Your task to perform on an android device: turn pop-ups on in chrome Image 0: 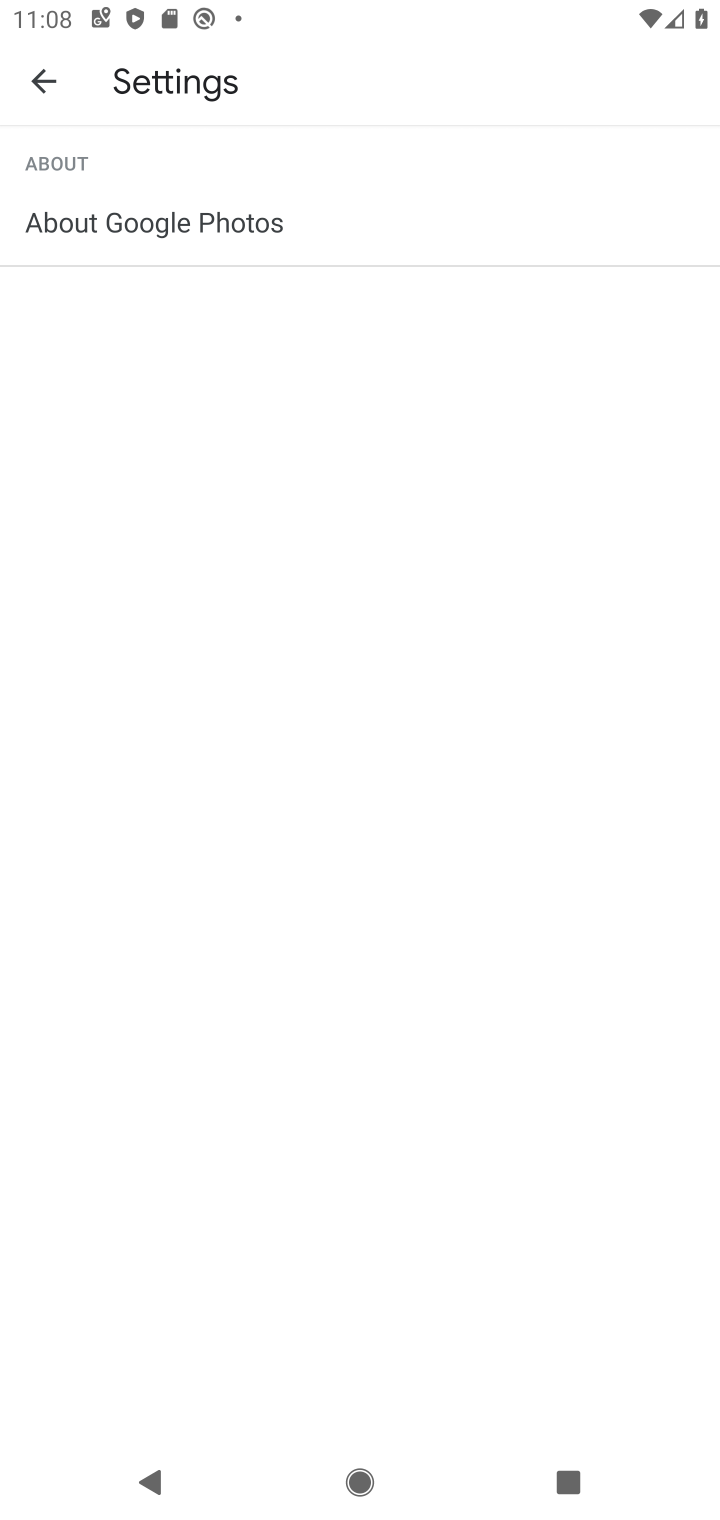
Step 0: press back button
Your task to perform on an android device: turn pop-ups on in chrome Image 1: 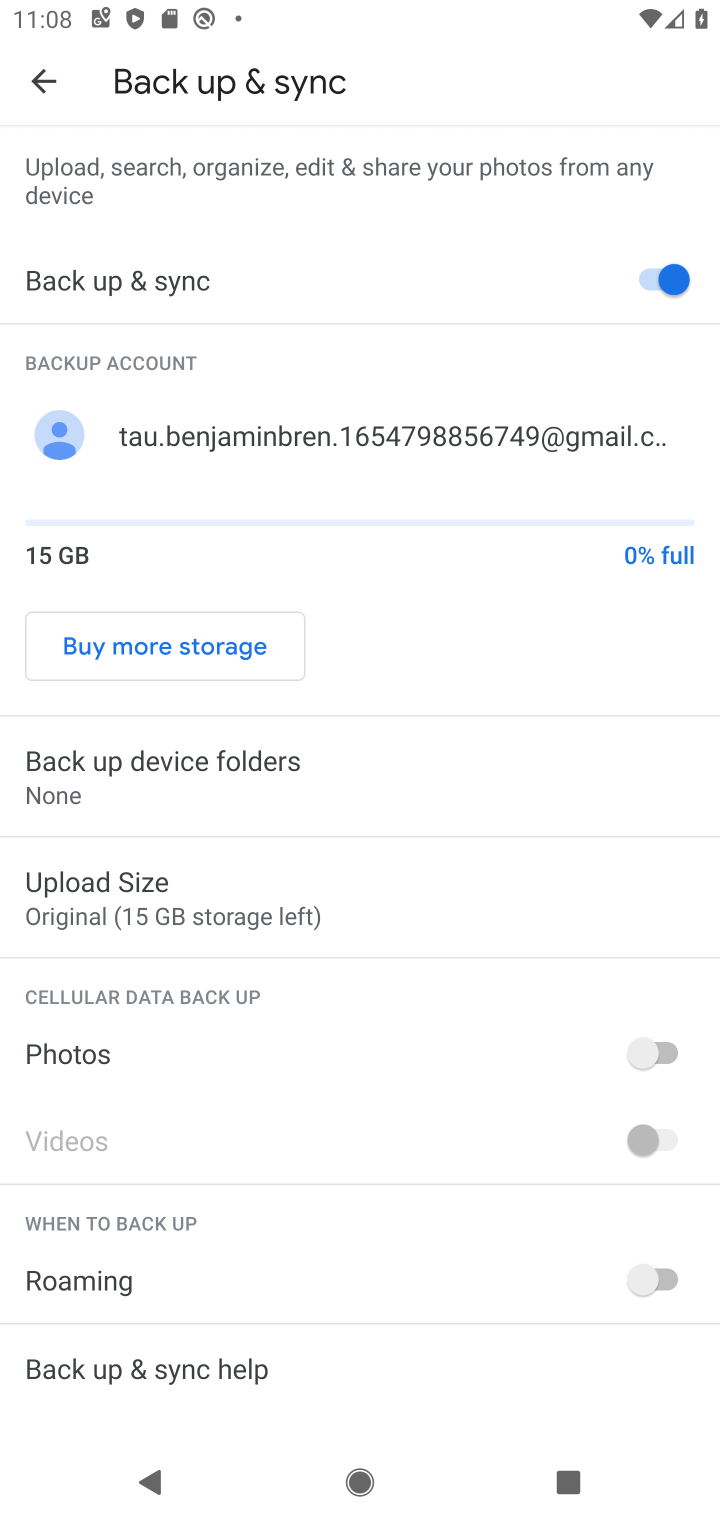
Step 1: press home button
Your task to perform on an android device: turn pop-ups on in chrome Image 2: 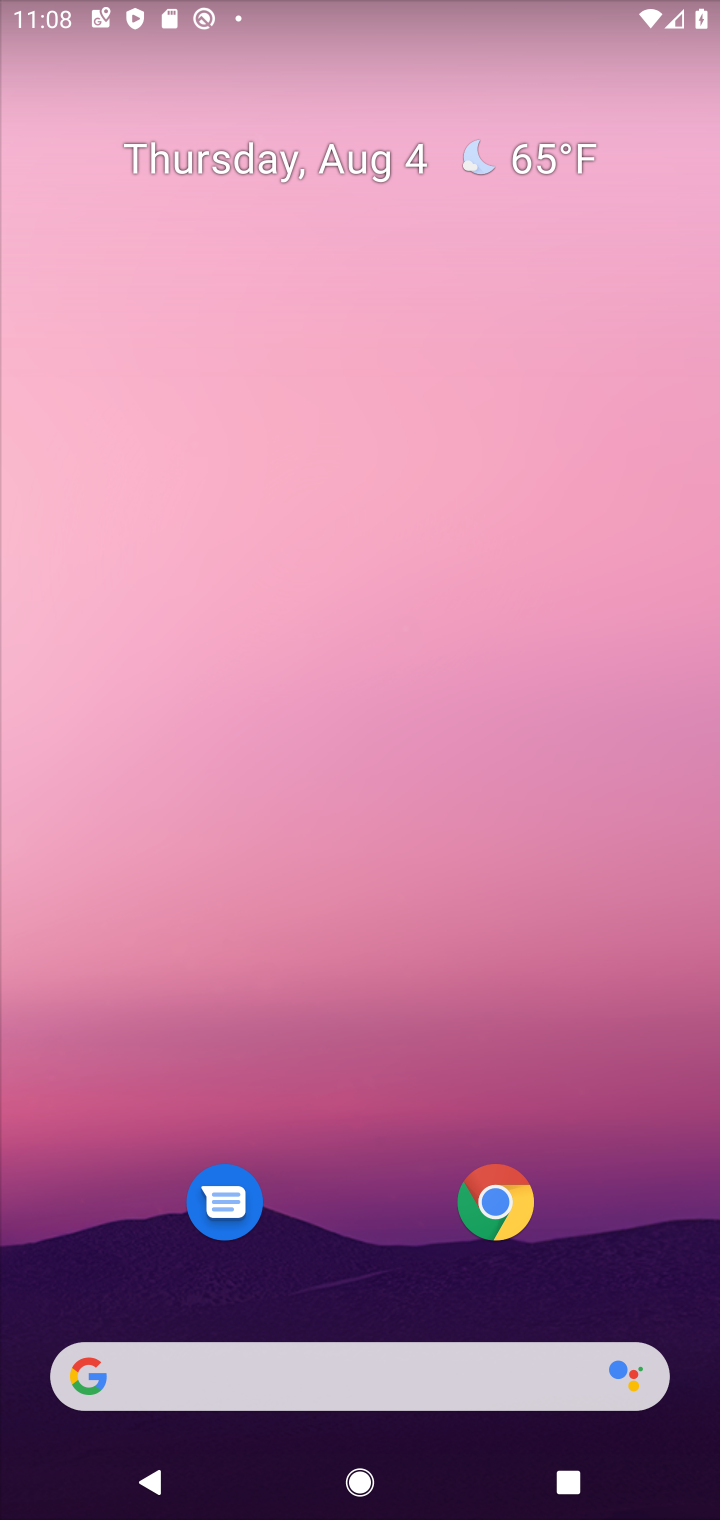
Step 2: click (502, 1194)
Your task to perform on an android device: turn pop-ups on in chrome Image 3: 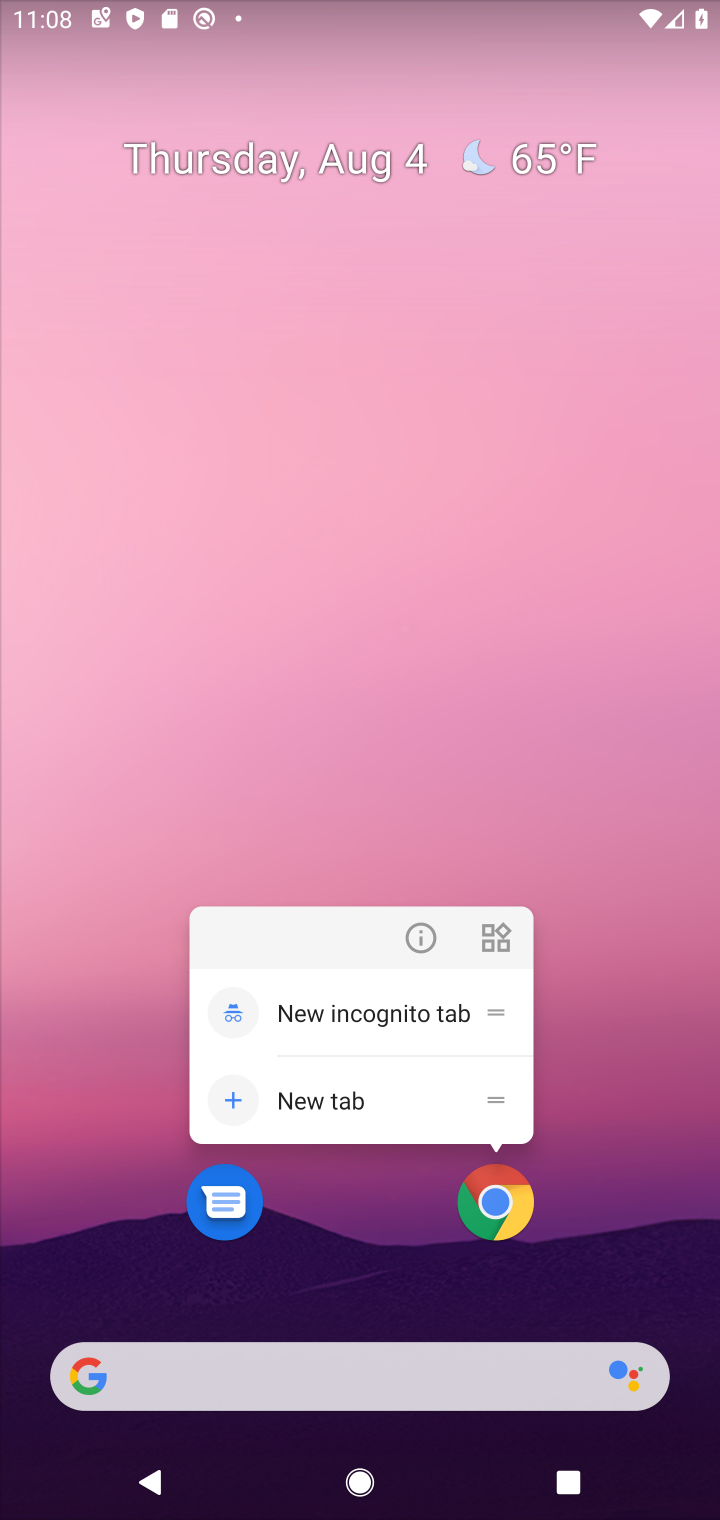
Step 3: click (482, 1205)
Your task to perform on an android device: turn pop-ups on in chrome Image 4: 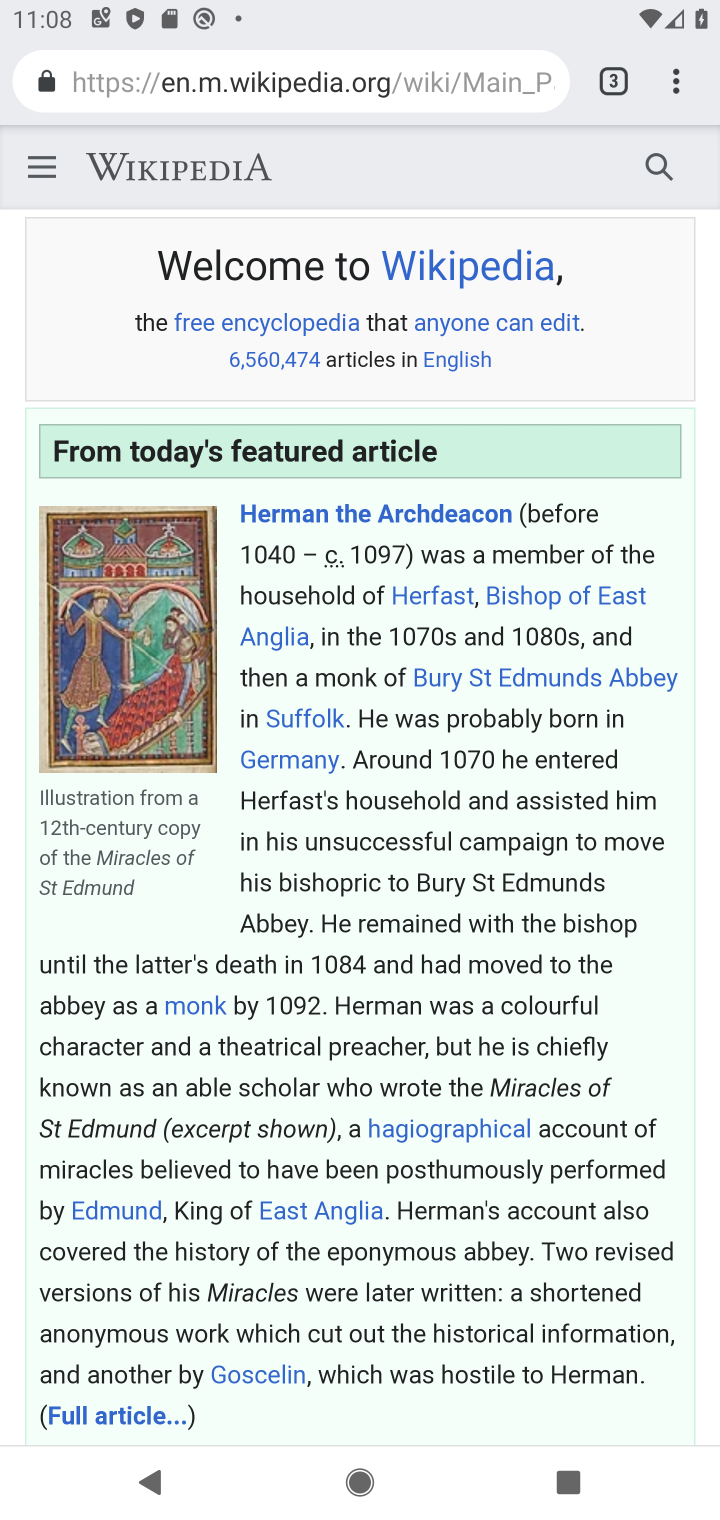
Step 4: drag from (677, 68) to (437, 1003)
Your task to perform on an android device: turn pop-ups on in chrome Image 5: 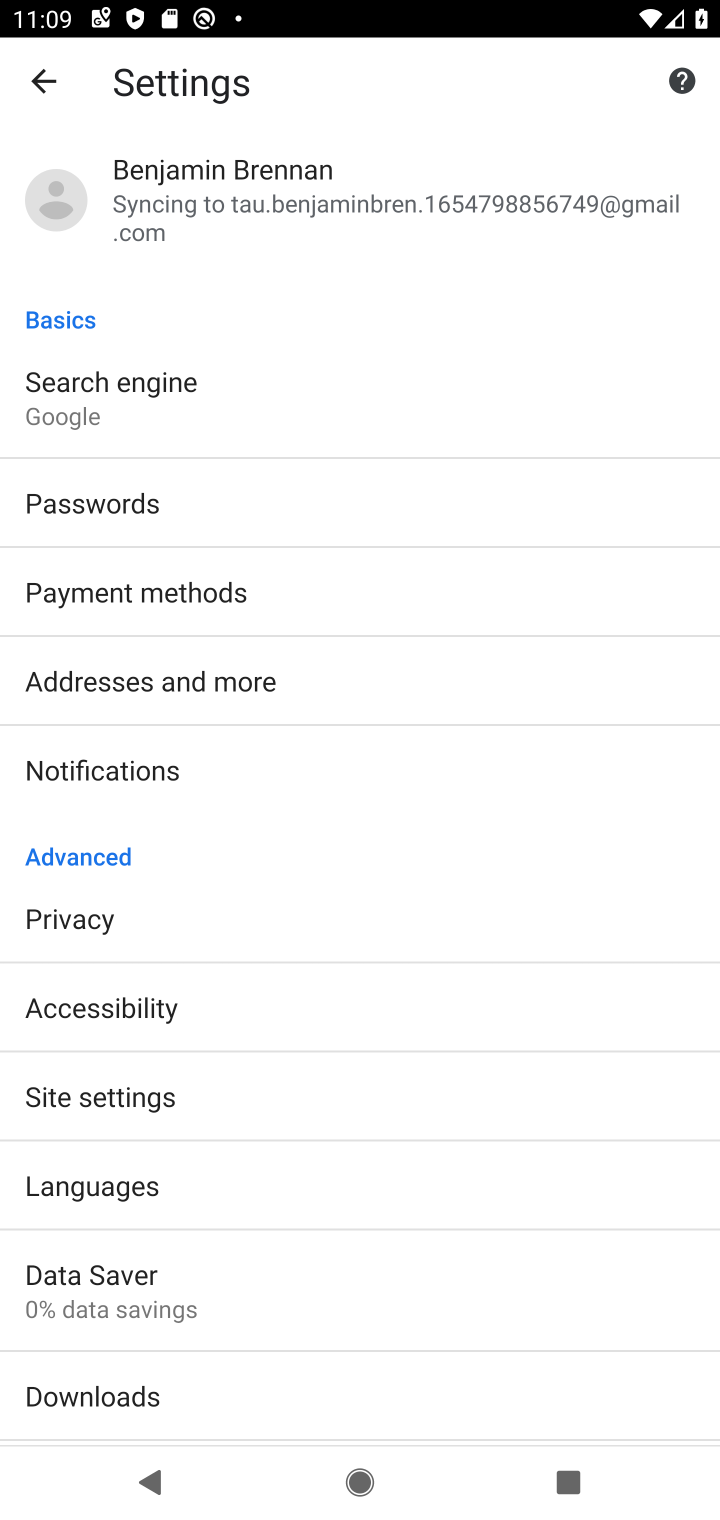
Step 5: click (131, 1086)
Your task to perform on an android device: turn pop-ups on in chrome Image 6: 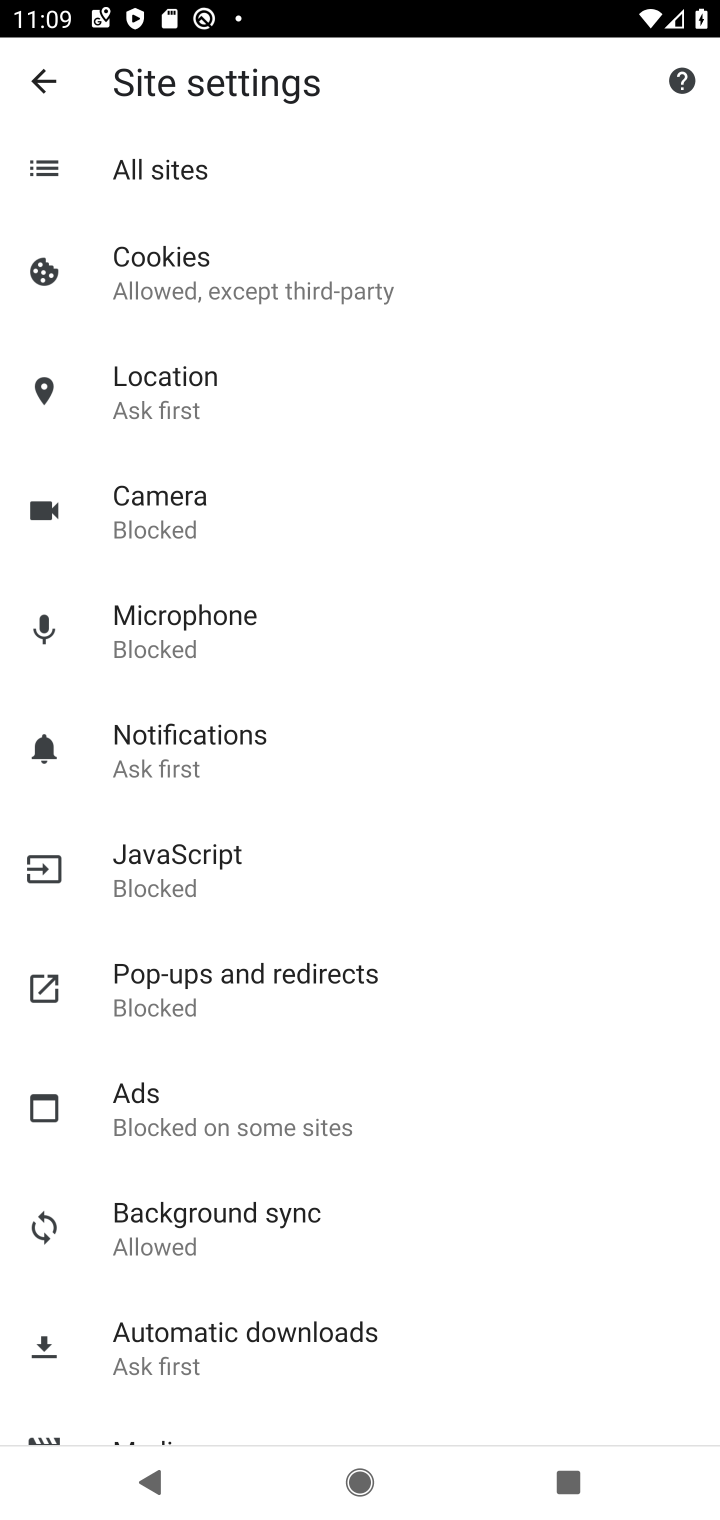
Step 6: click (193, 1002)
Your task to perform on an android device: turn pop-ups on in chrome Image 7: 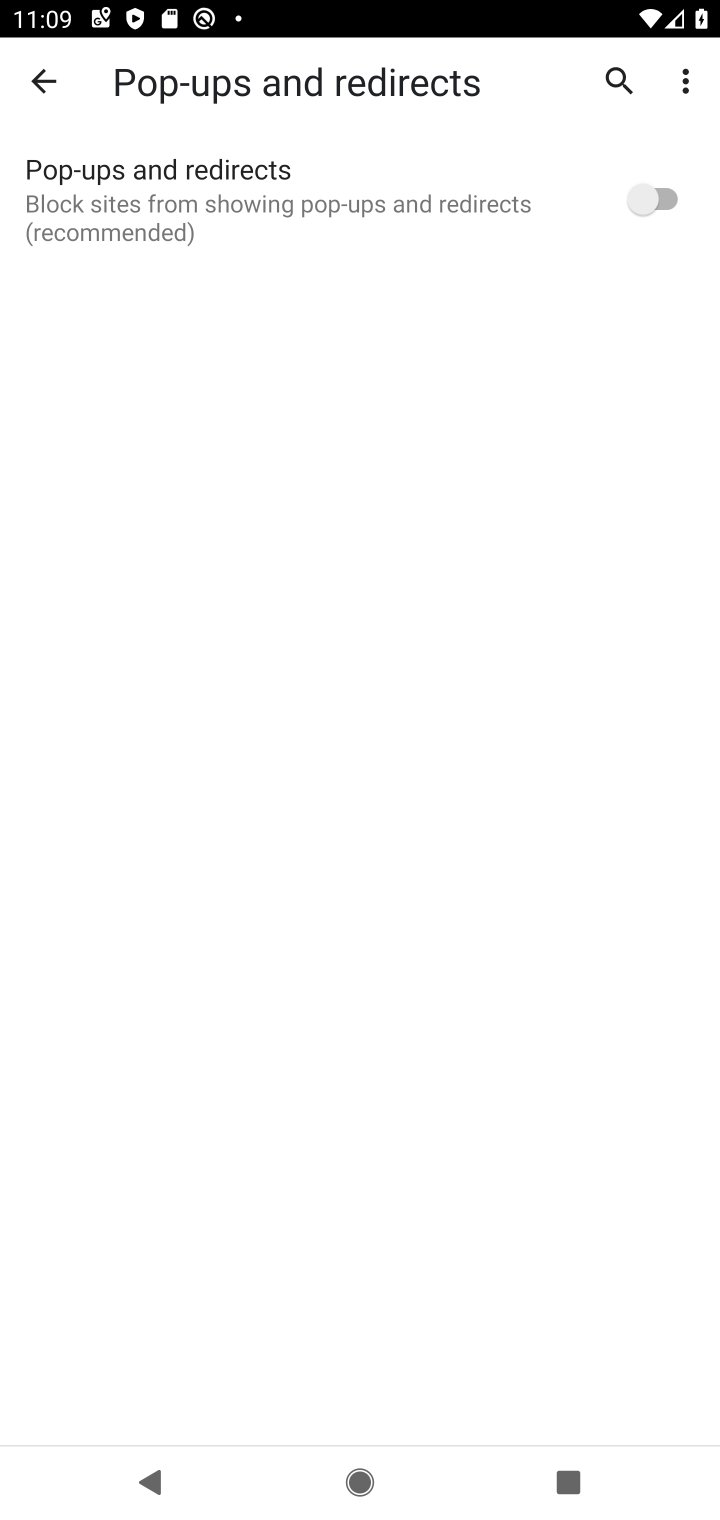
Step 7: click (631, 193)
Your task to perform on an android device: turn pop-ups on in chrome Image 8: 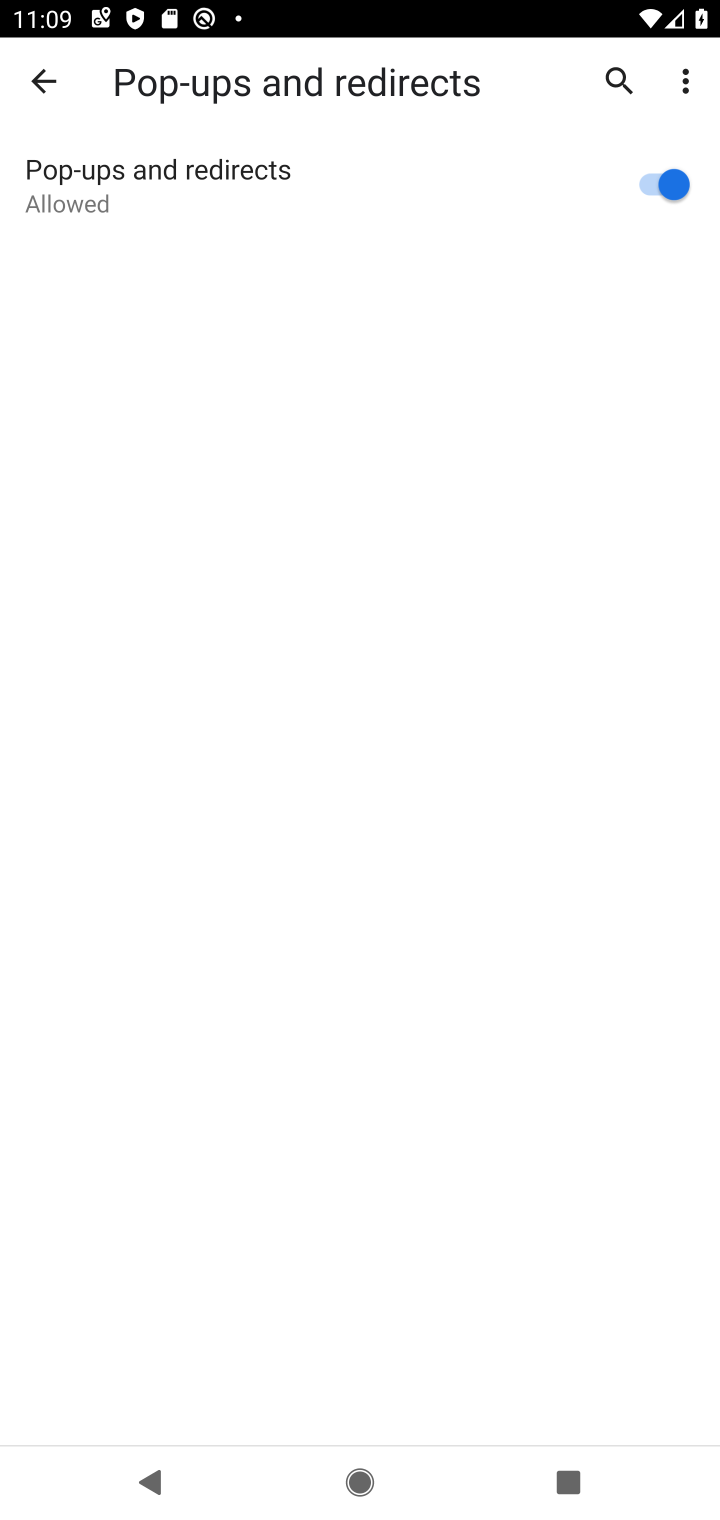
Step 8: task complete